Your task to perform on an android device: Open the calendar and show me this week's events? Image 0: 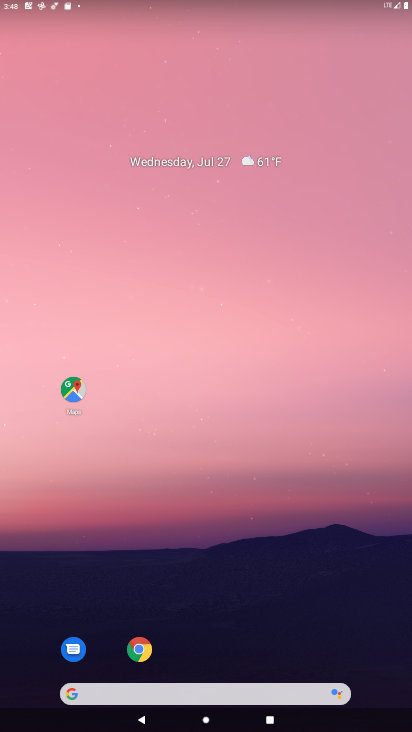
Step 0: drag from (181, 629) to (150, 100)
Your task to perform on an android device: Open the calendar and show me this week's events? Image 1: 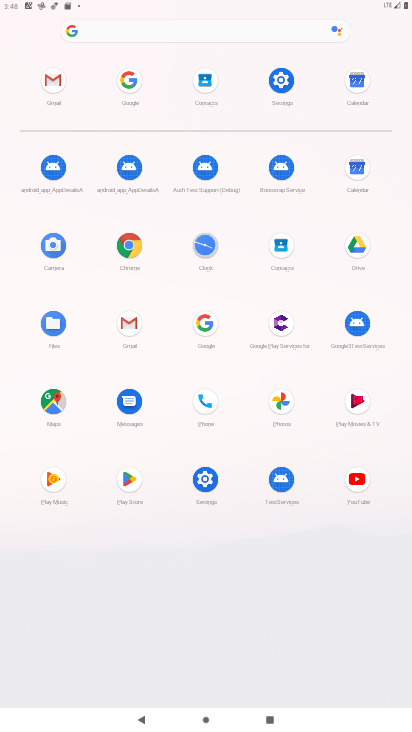
Step 1: click (366, 180)
Your task to perform on an android device: Open the calendar and show me this week's events? Image 2: 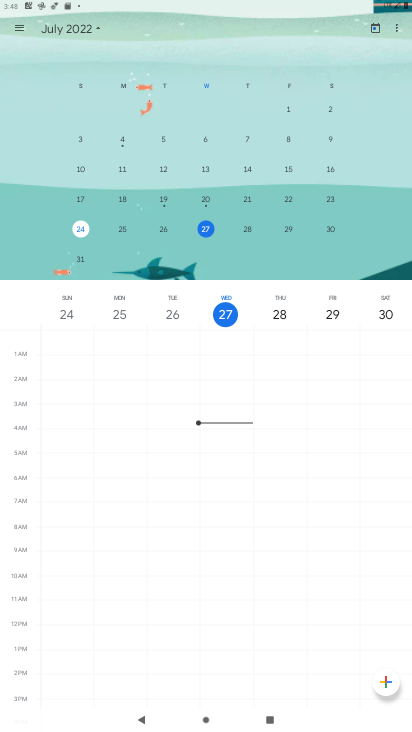
Step 2: task complete